Your task to perform on an android device: open wifi settings Image 0: 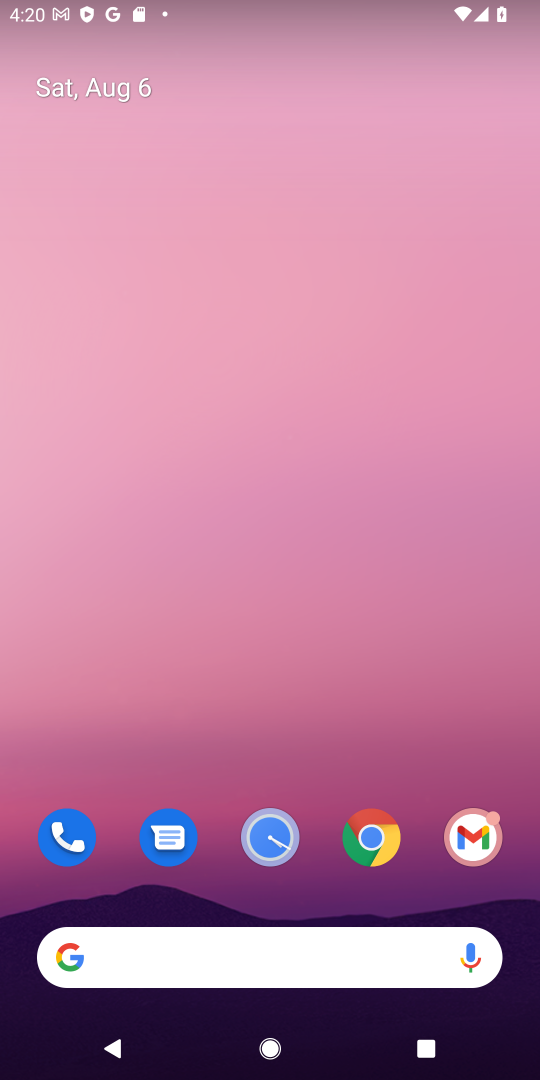
Step 0: drag from (423, 894) to (393, 109)
Your task to perform on an android device: open wifi settings Image 1: 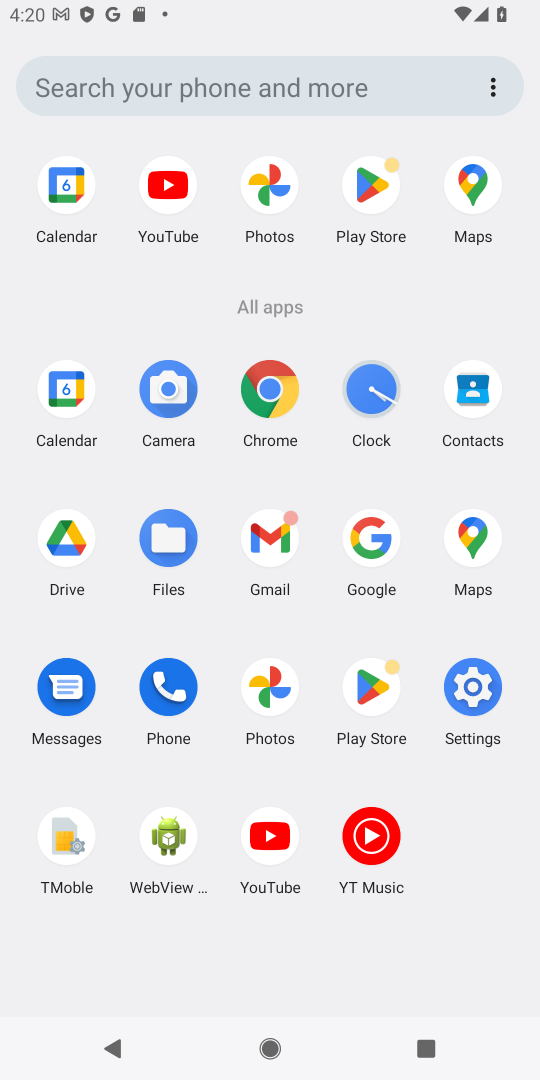
Step 1: click (470, 678)
Your task to perform on an android device: open wifi settings Image 2: 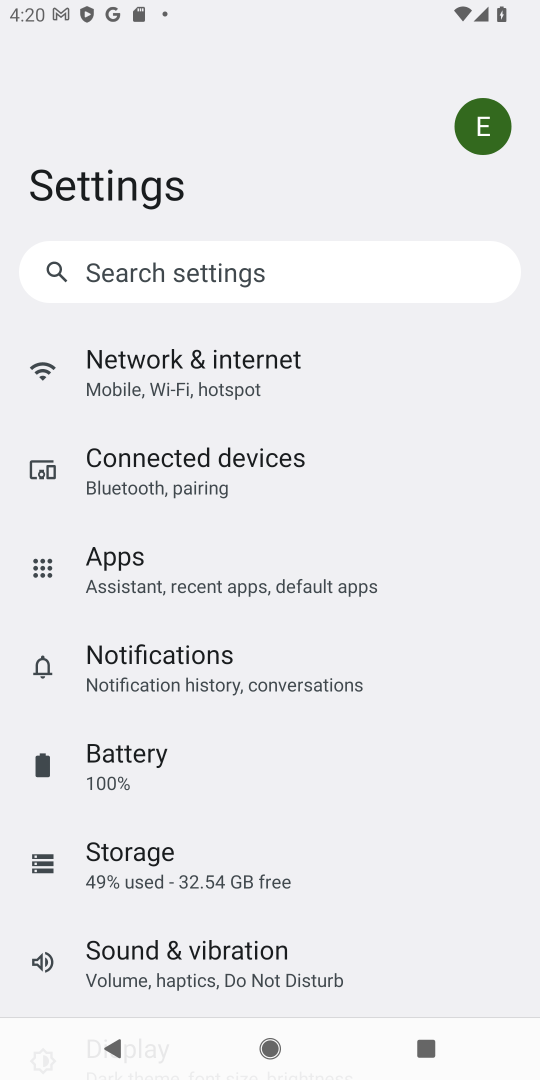
Step 2: click (136, 363)
Your task to perform on an android device: open wifi settings Image 3: 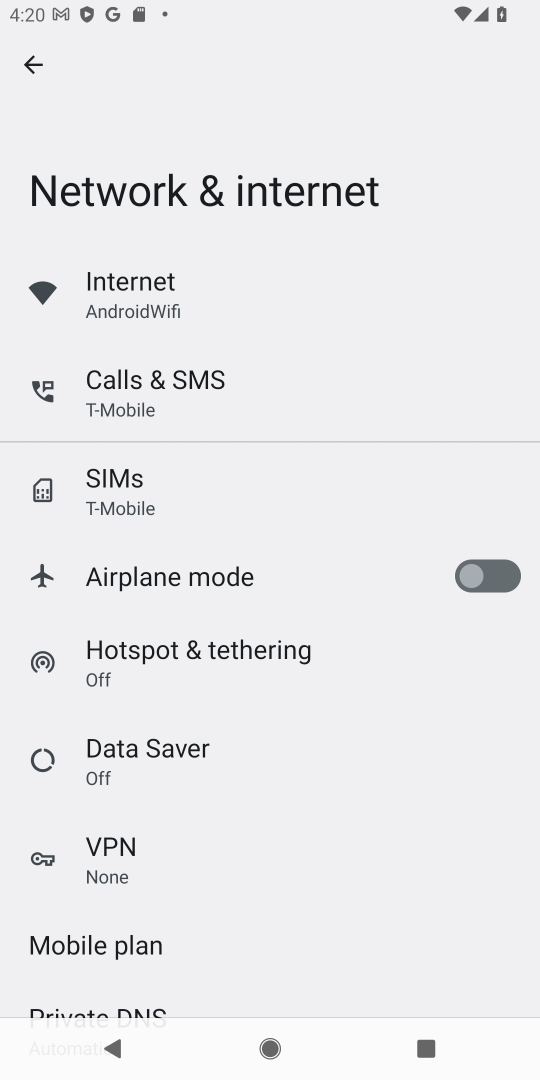
Step 3: click (125, 274)
Your task to perform on an android device: open wifi settings Image 4: 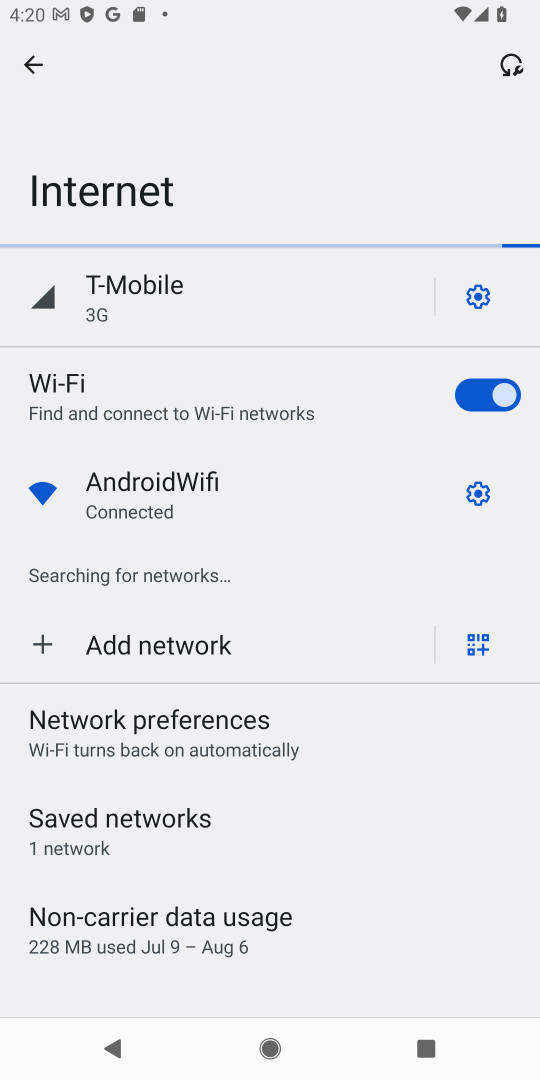
Step 4: click (480, 488)
Your task to perform on an android device: open wifi settings Image 5: 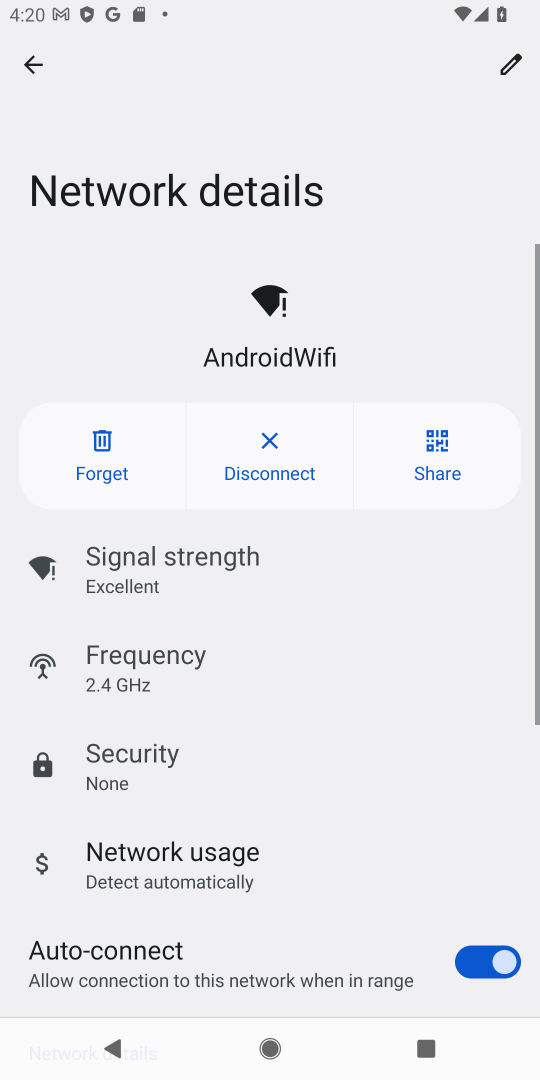
Step 5: task complete